Your task to perform on an android device: Go to Yahoo.com Image 0: 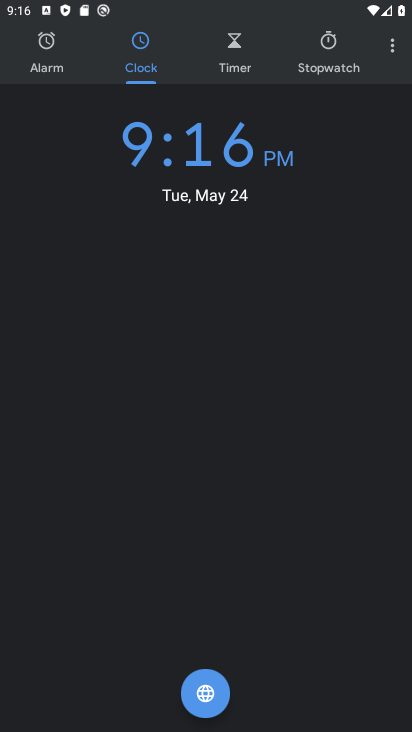
Step 0: press home button
Your task to perform on an android device: Go to Yahoo.com Image 1: 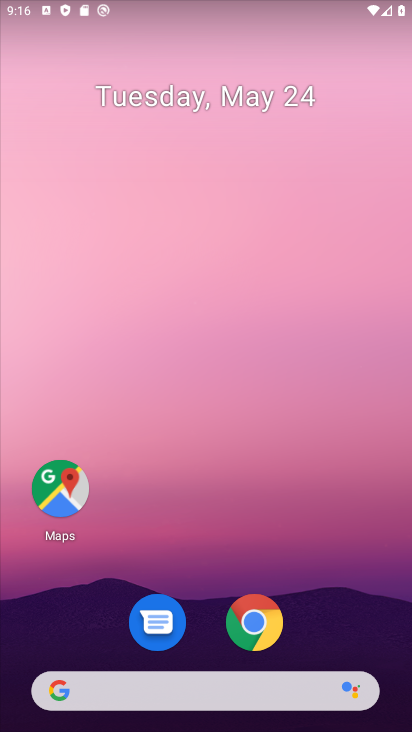
Step 1: drag from (258, 673) to (382, 191)
Your task to perform on an android device: Go to Yahoo.com Image 2: 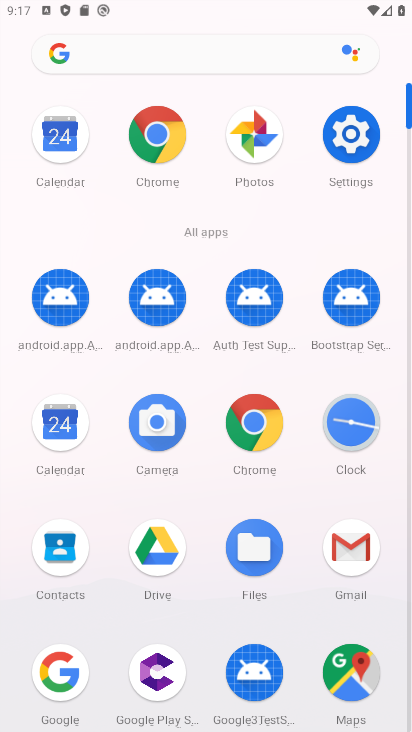
Step 2: click (165, 150)
Your task to perform on an android device: Go to Yahoo.com Image 3: 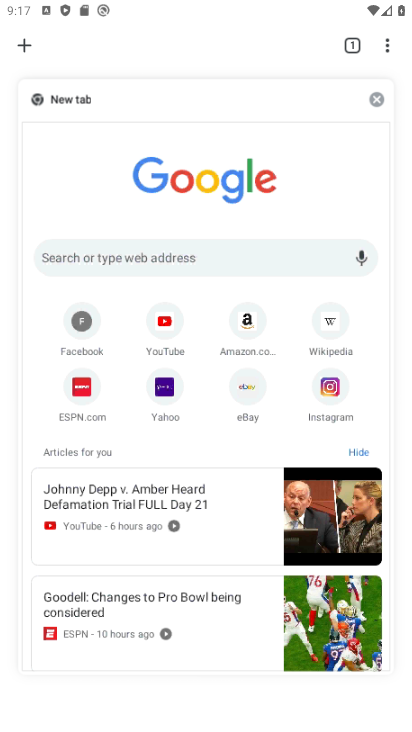
Step 3: click (388, 49)
Your task to perform on an android device: Go to Yahoo.com Image 4: 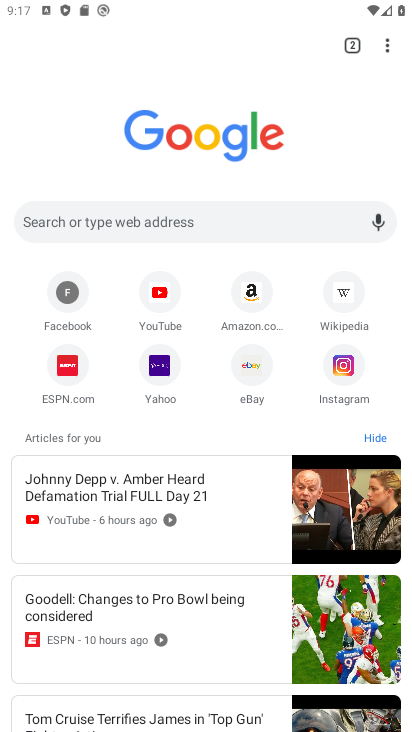
Step 4: click (169, 361)
Your task to perform on an android device: Go to Yahoo.com Image 5: 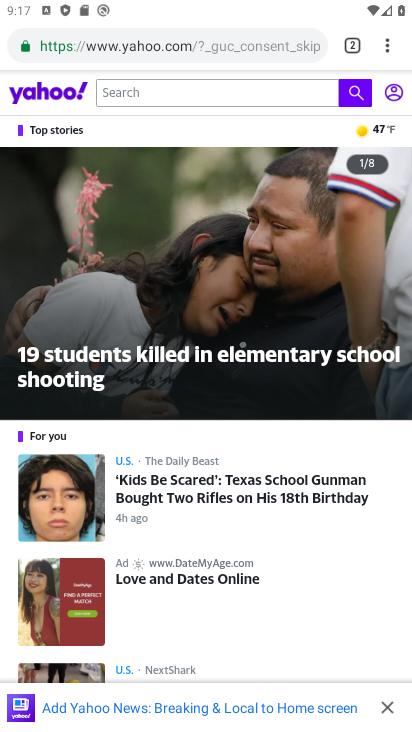
Step 5: task complete